Your task to perform on an android device: Open Maps and search for coffee Image 0: 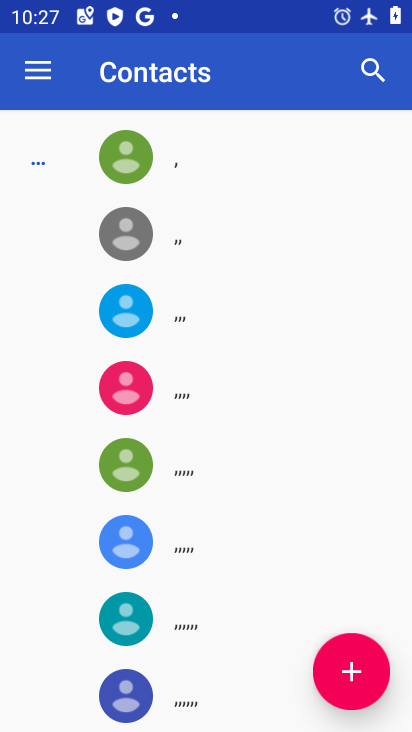
Step 0: press home button
Your task to perform on an android device: Open Maps and search for coffee Image 1: 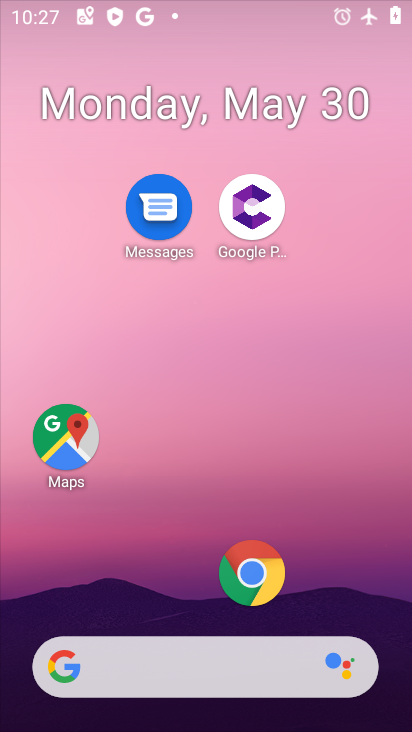
Step 1: drag from (252, 662) to (280, 137)
Your task to perform on an android device: Open Maps and search for coffee Image 2: 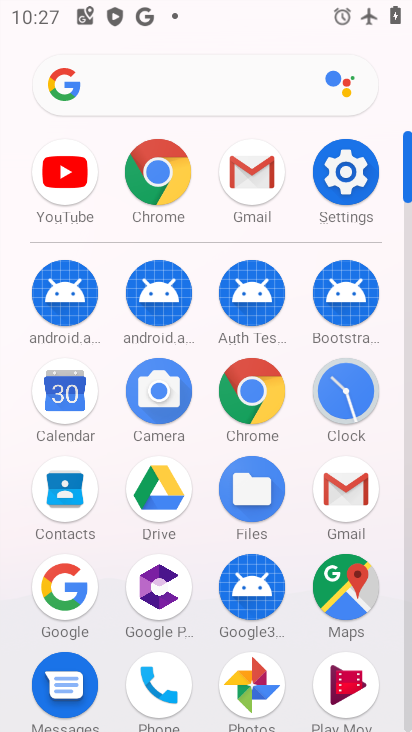
Step 2: click (356, 592)
Your task to perform on an android device: Open Maps and search for coffee Image 3: 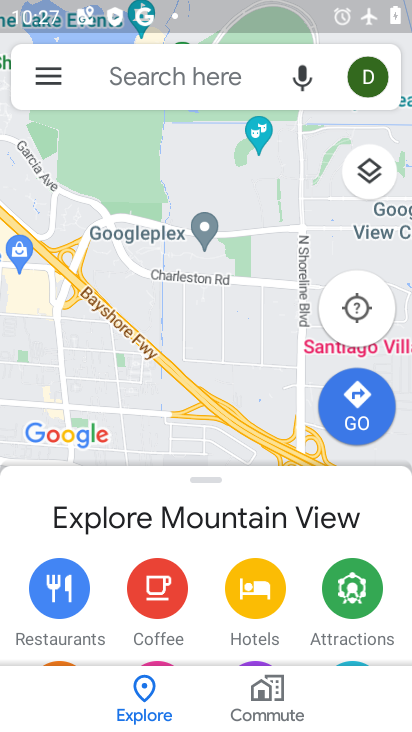
Step 3: click (184, 95)
Your task to perform on an android device: Open Maps and search for coffee Image 4: 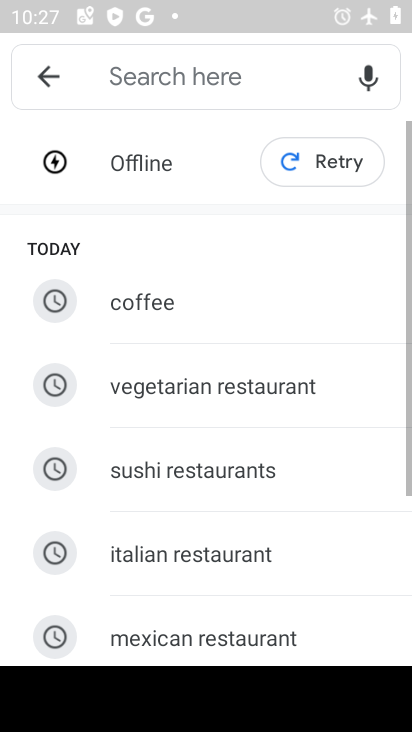
Step 4: click (140, 297)
Your task to perform on an android device: Open Maps and search for coffee Image 5: 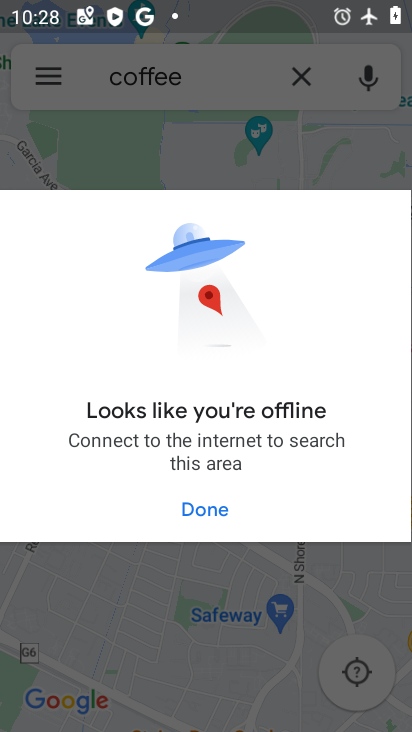
Step 5: task complete